Your task to perform on an android device: Turn off the flashlight Image 0: 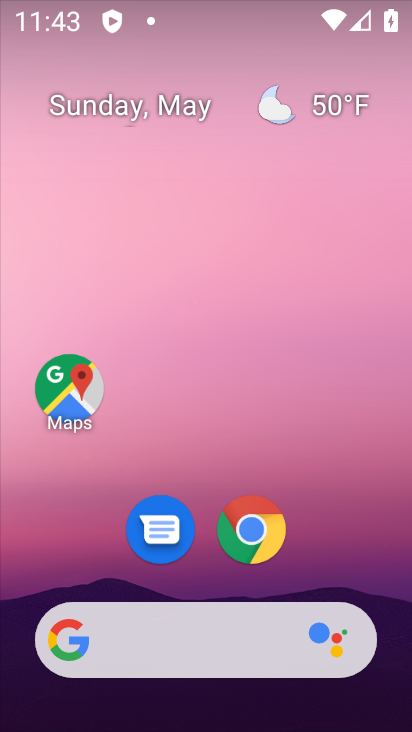
Step 0: drag from (319, 2) to (308, 538)
Your task to perform on an android device: Turn off the flashlight Image 1: 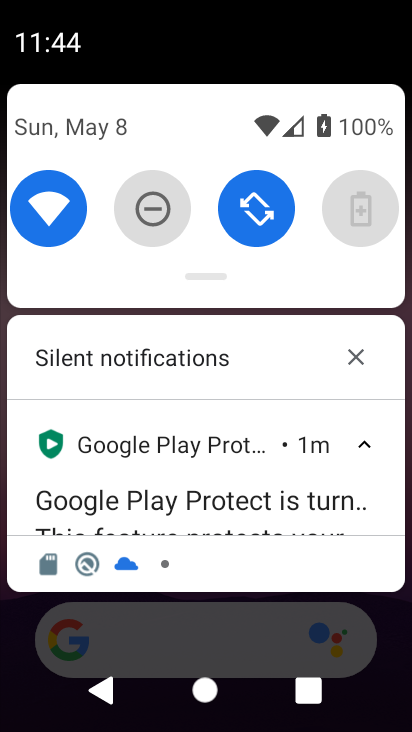
Step 1: task complete